Your task to perform on an android device: Go to Reddit.com Image 0: 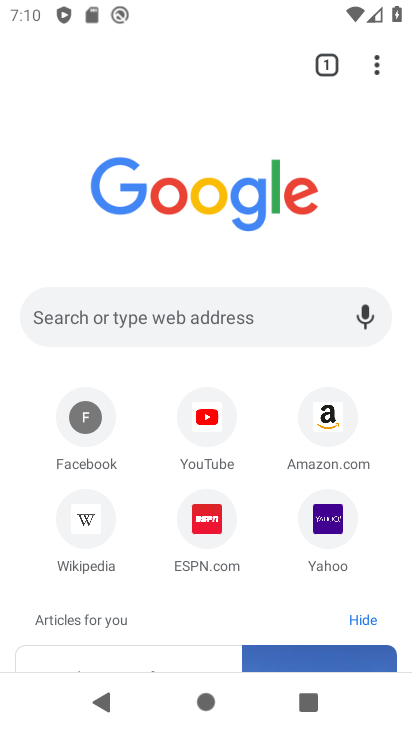
Step 0: click (283, 322)
Your task to perform on an android device: Go to Reddit.com Image 1: 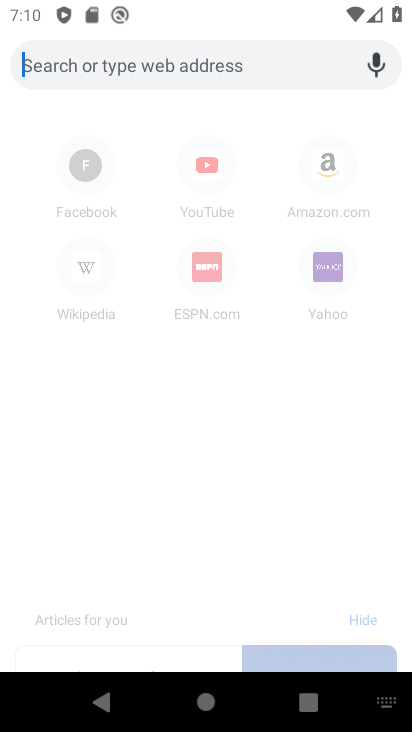
Step 1: type "reddit.com"
Your task to perform on an android device: Go to Reddit.com Image 2: 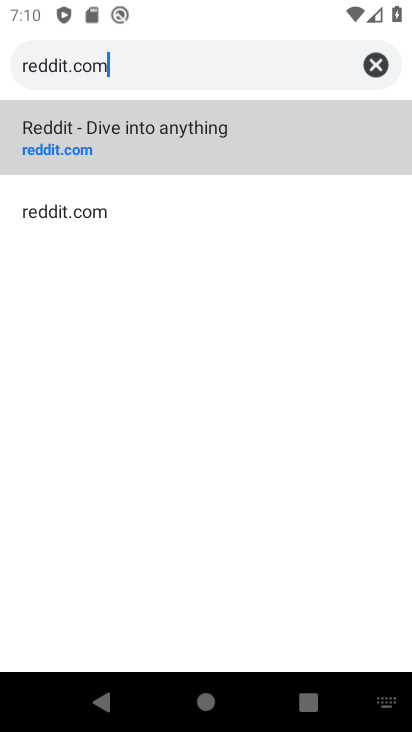
Step 2: click (227, 144)
Your task to perform on an android device: Go to Reddit.com Image 3: 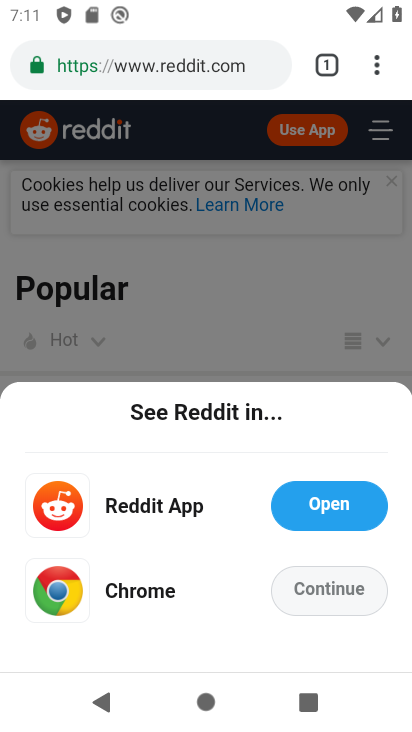
Step 3: click (341, 594)
Your task to perform on an android device: Go to Reddit.com Image 4: 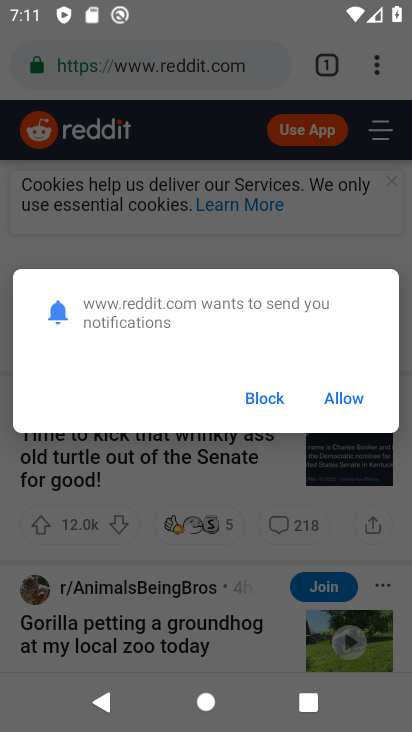
Step 4: click (270, 401)
Your task to perform on an android device: Go to Reddit.com Image 5: 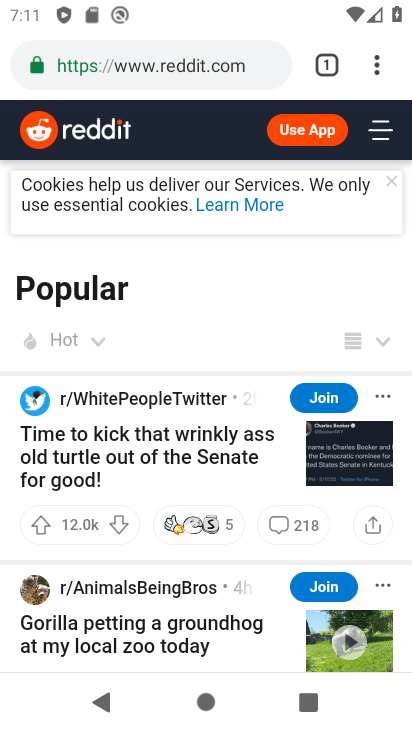
Step 5: task complete